Your task to perform on an android device: find which apps use the phone's location Image 0: 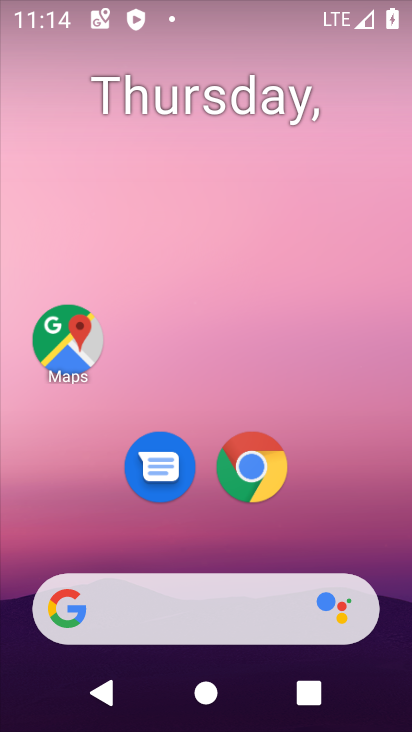
Step 0: drag from (171, 527) to (248, 35)
Your task to perform on an android device: find which apps use the phone's location Image 1: 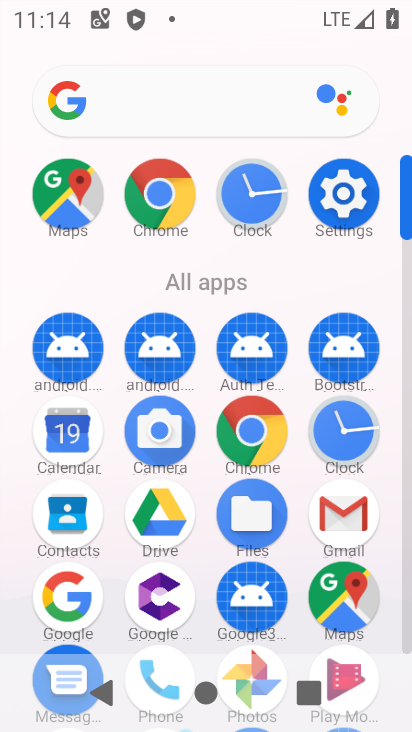
Step 1: click (339, 168)
Your task to perform on an android device: find which apps use the phone's location Image 2: 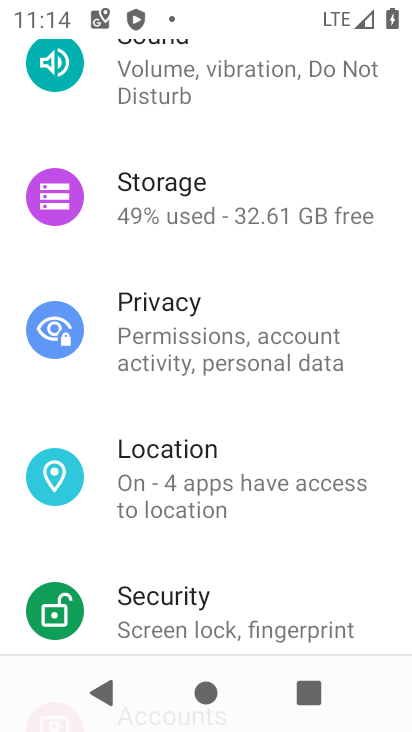
Step 2: click (205, 482)
Your task to perform on an android device: find which apps use the phone's location Image 3: 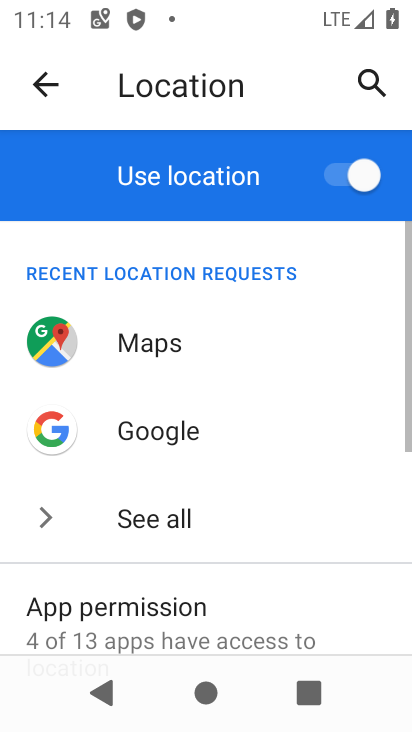
Step 3: drag from (175, 603) to (294, 137)
Your task to perform on an android device: find which apps use the phone's location Image 4: 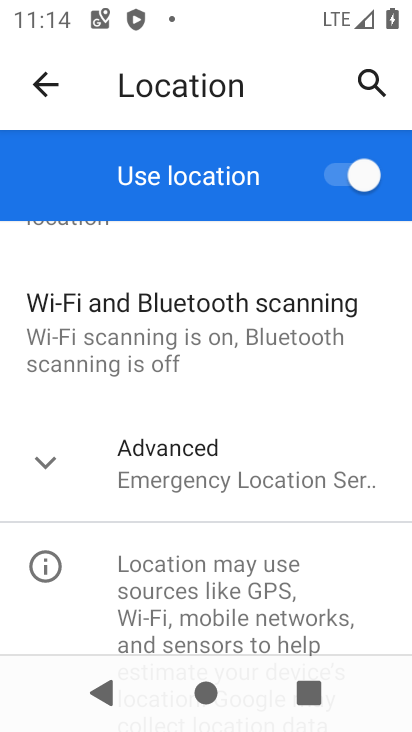
Step 4: drag from (178, 597) to (292, 233)
Your task to perform on an android device: find which apps use the phone's location Image 5: 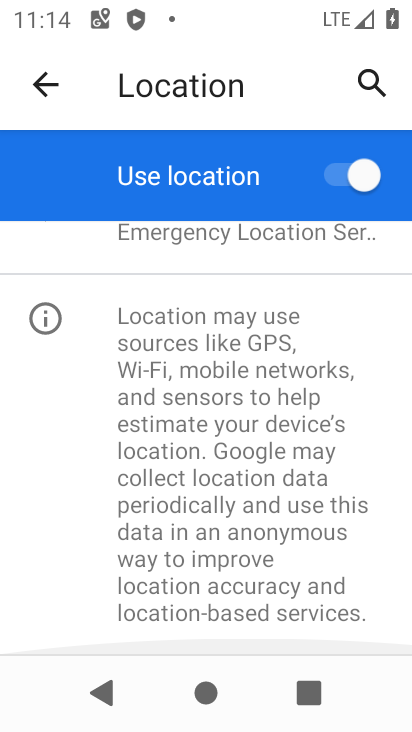
Step 5: drag from (225, 501) to (302, 223)
Your task to perform on an android device: find which apps use the phone's location Image 6: 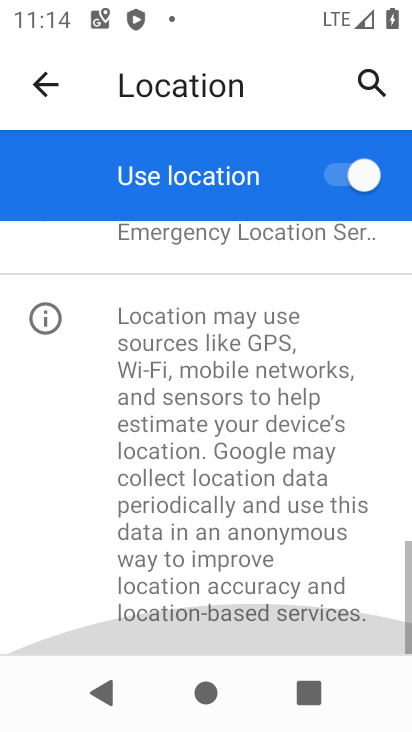
Step 6: drag from (278, 329) to (203, 657)
Your task to perform on an android device: find which apps use the phone's location Image 7: 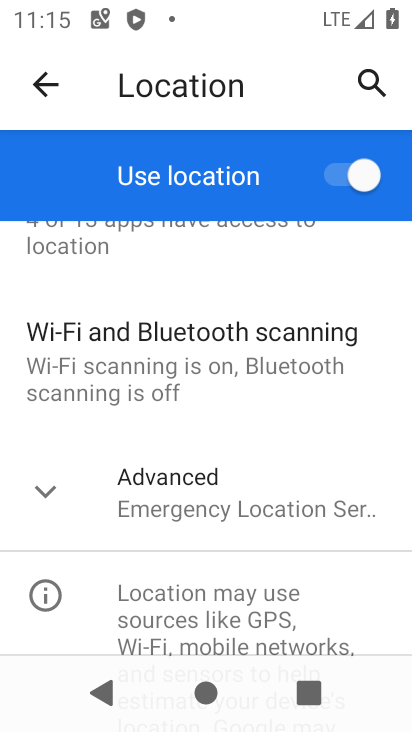
Step 7: click (152, 526)
Your task to perform on an android device: find which apps use the phone's location Image 8: 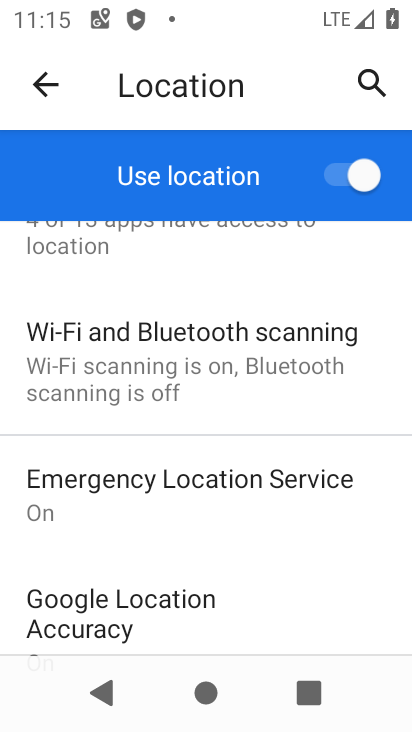
Step 8: task complete